Your task to perform on an android device: Go to internet settings Image 0: 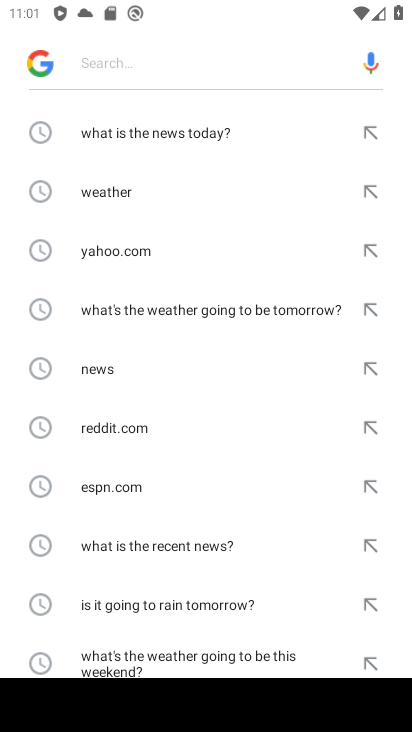
Step 0: press home button
Your task to perform on an android device: Go to internet settings Image 1: 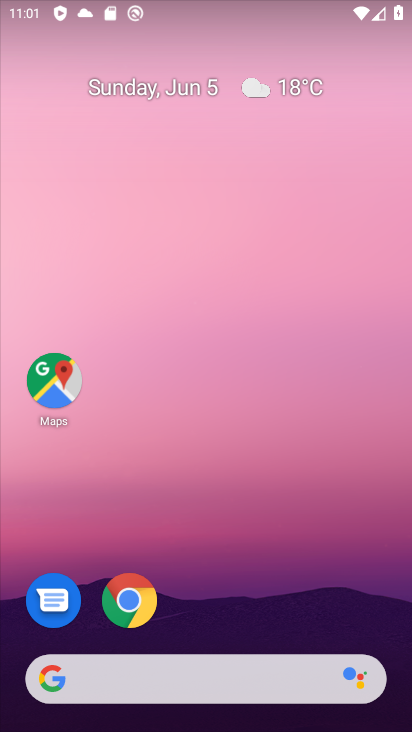
Step 1: drag from (256, 595) to (344, 203)
Your task to perform on an android device: Go to internet settings Image 2: 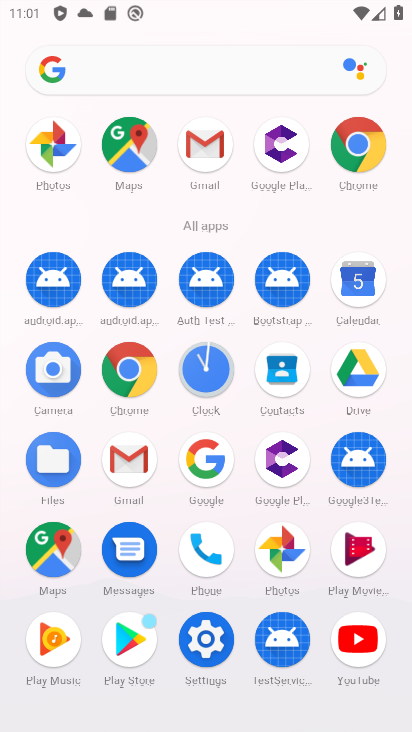
Step 2: drag from (192, 631) to (295, 277)
Your task to perform on an android device: Go to internet settings Image 3: 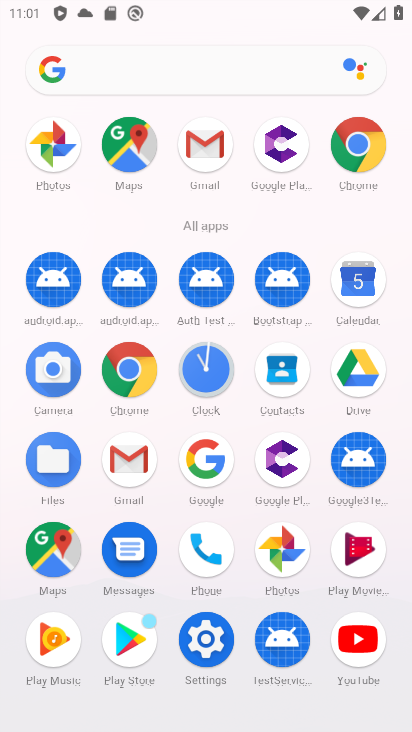
Step 3: click (212, 630)
Your task to perform on an android device: Go to internet settings Image 4: 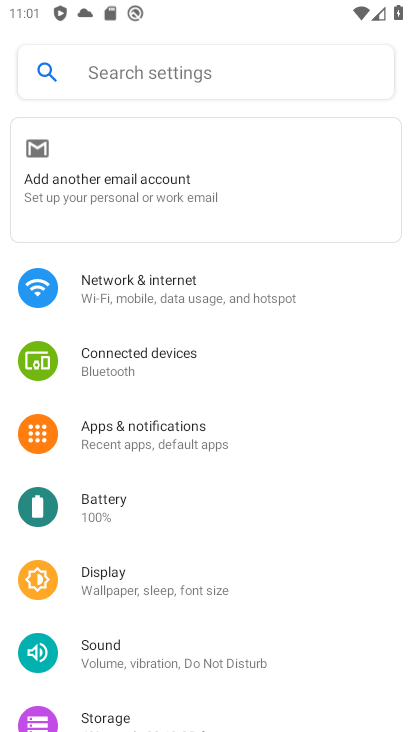
Step 4: click (185, 297)
Your task to perform on an android device: Go to internet settings Image 5: 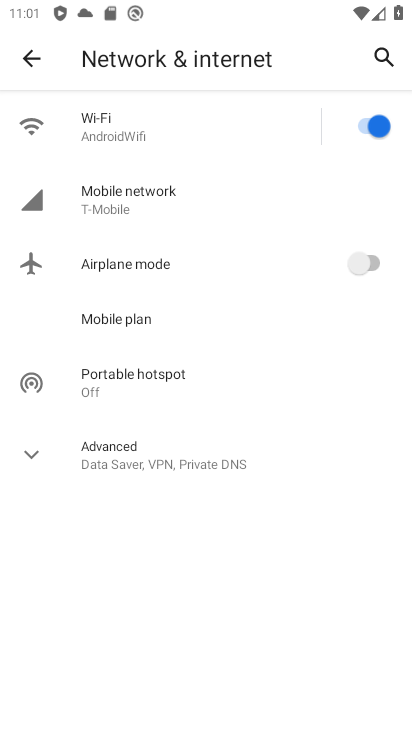
Step 5: click (195, 206)
Your task to perform on an android device: Go to internet settings Image 6: 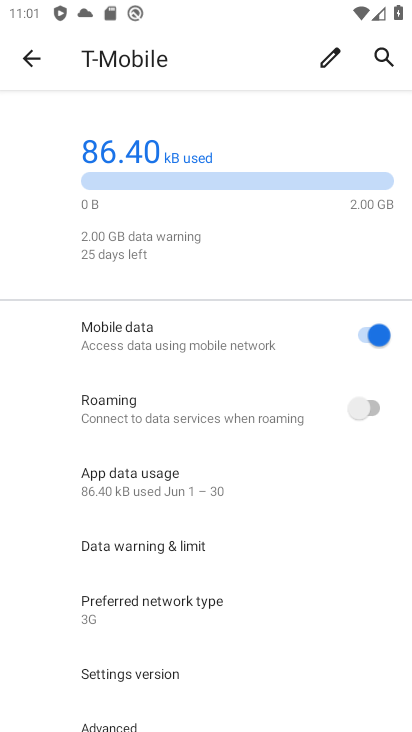
Step 6: task complete